Your task to perform on an android device: What's the weather going to be tomorrow? Image 0: 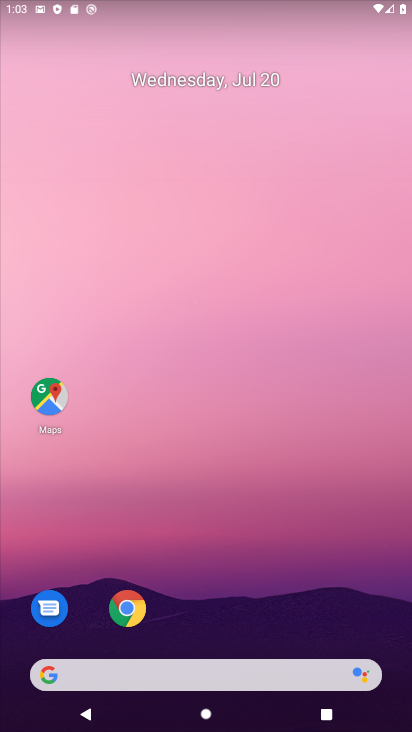
Step 0: click (152, 684)
Your task to perform on an android device: What's the weather going to be tomorrow? Image 1: 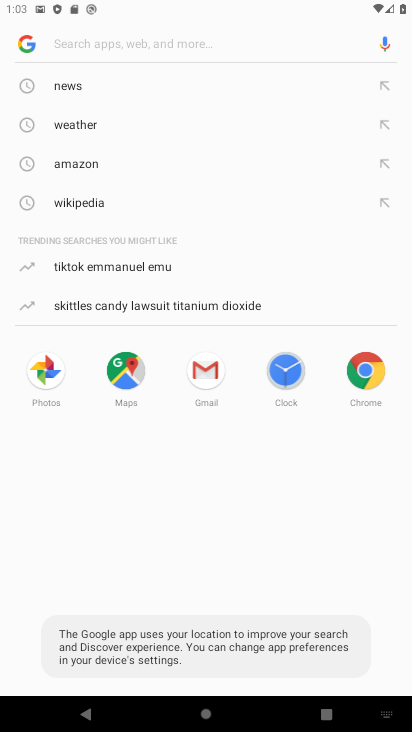
Step 1: click (73, 117)
Your task to perform on an android device: What's the weather going to be tomorrow? Image 2: 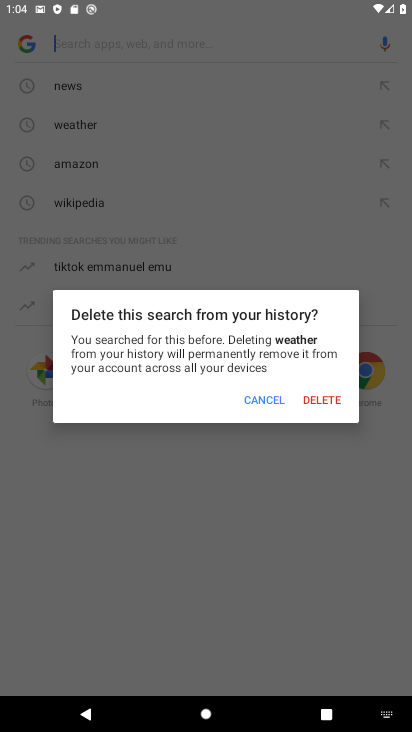
Step 2: click (259, 410)
Your task to perform on an android device: What's the weather going to be tomorrow? Image 3: 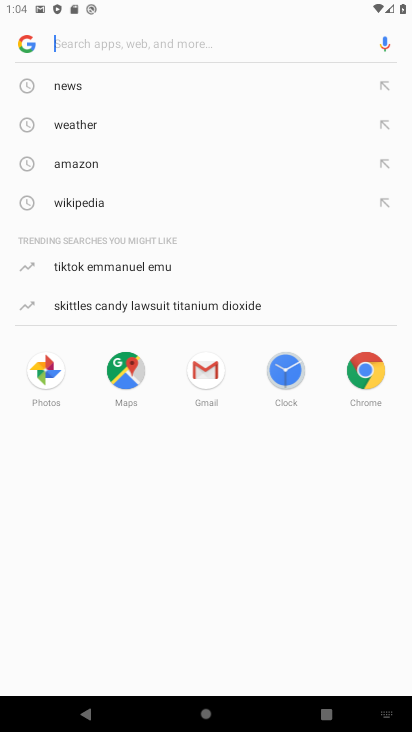
Step 3: click (114, 118)
Your task to perform on an android device: What's the weather going to be tomorrow? Image 4: 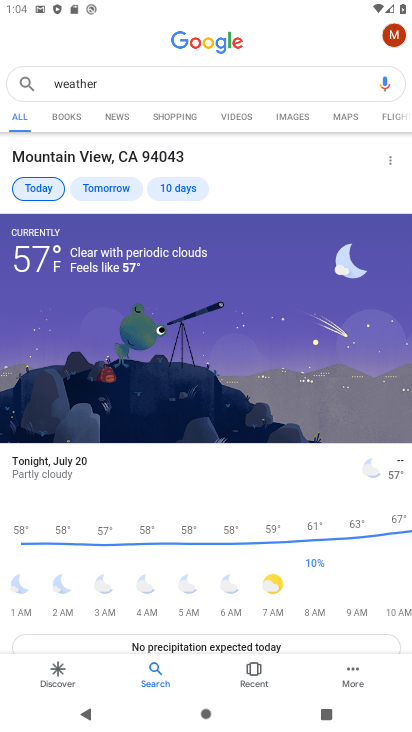
Step 4: click (107, 183)
Your task to perform on an android device: What's the weather going to be tomorrow? Image 5: 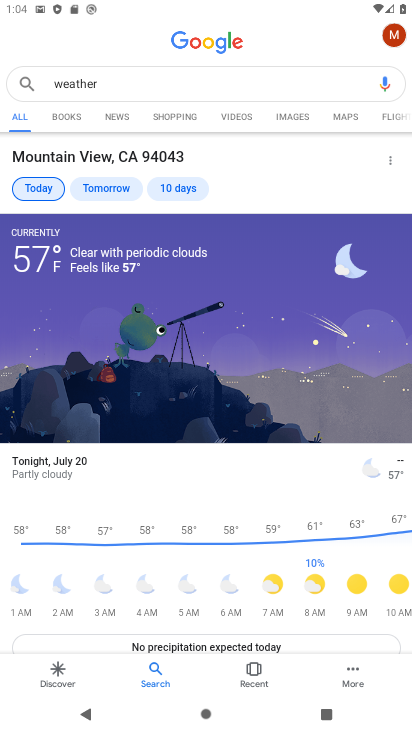
Step 5: click (111, 188)
Your task to perform on an android device: What's the weather going to be tomorrow? Image 6: 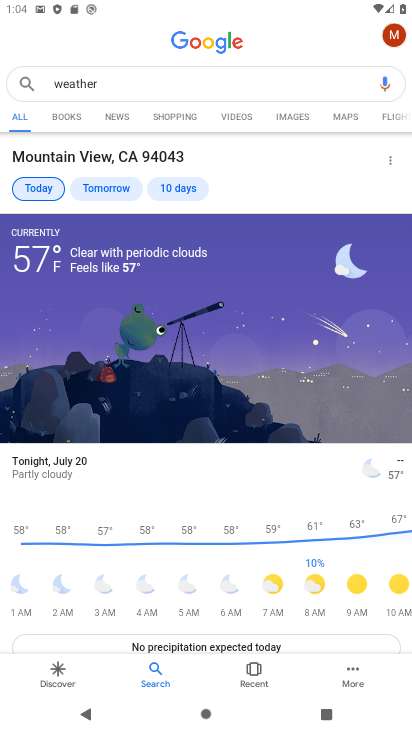
Step 6: click (110, 186)
Your task to perform on an android device: What's the weather going to be tomorrow? Image 7: 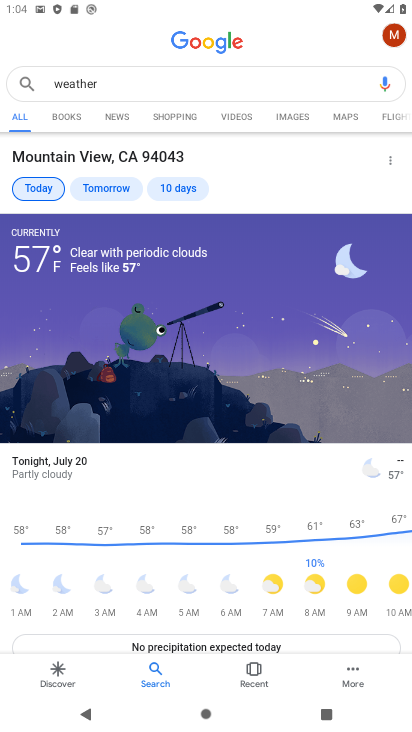
Step 7: click (111, 190)
Your task to perform on an android device: What's the weather going to be tomorrow? Image 8: 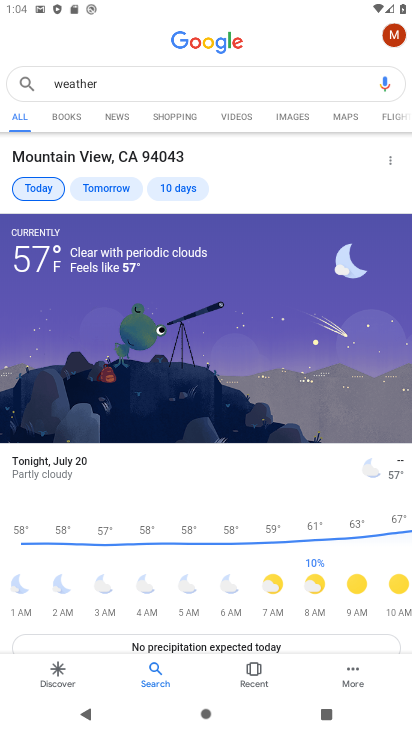
Step 8: click (110, 192)
Your task to perform on an android device: What's the weather going to be tomorrow? Image 9: 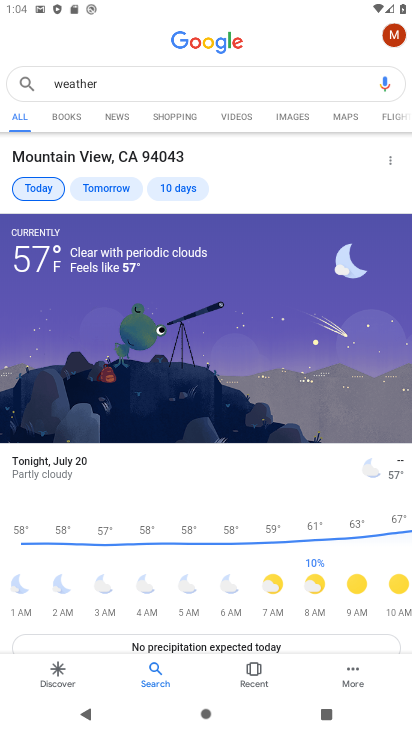
Step 9: task complete